Your task to perform on an android device: Clear the shopping cart on bestbuy. Add "corsair k70" to the cart on bestbuy, then select checkout. Image 0: 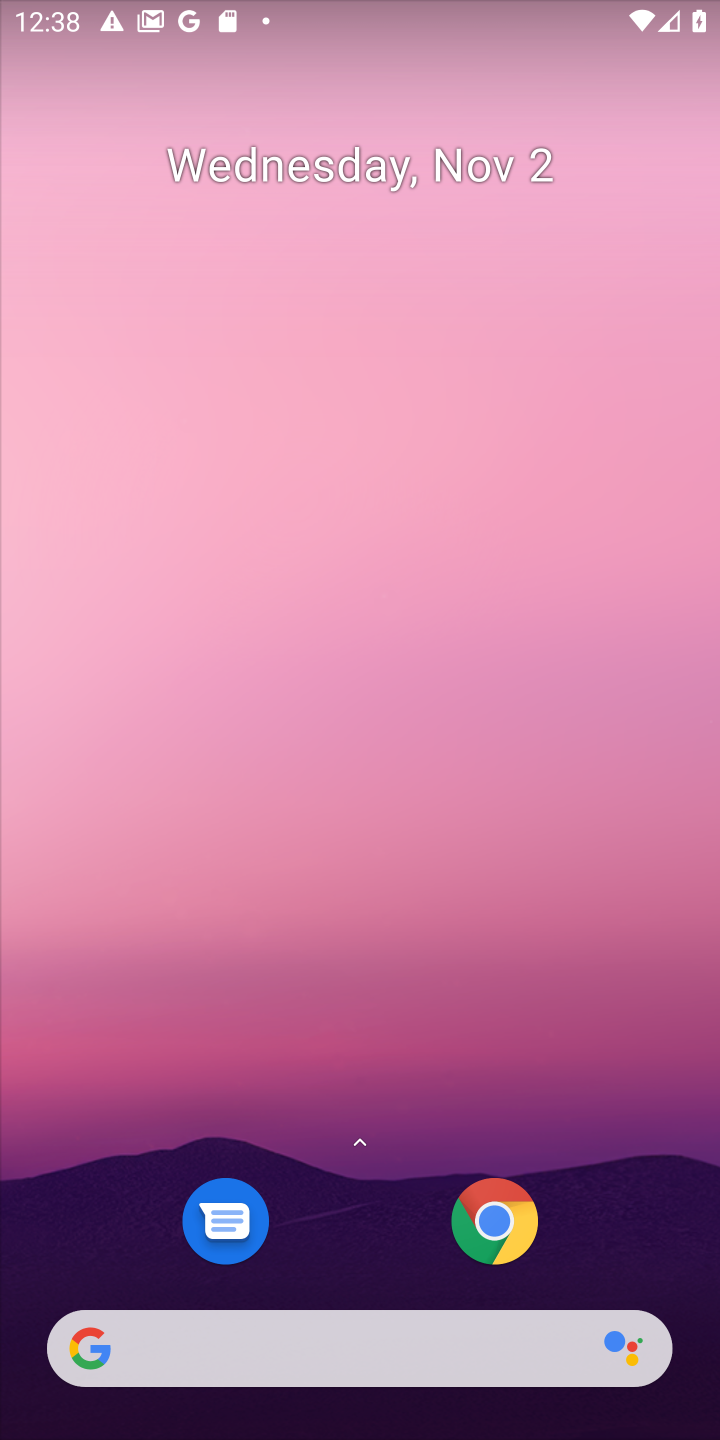
Step 0: click (312, 1353)
Your task to perform on an android device: Clear the shopping cart on bestbuy. Add "corsair k70" to the cart on bestbuy, then select checkout. Image 1: 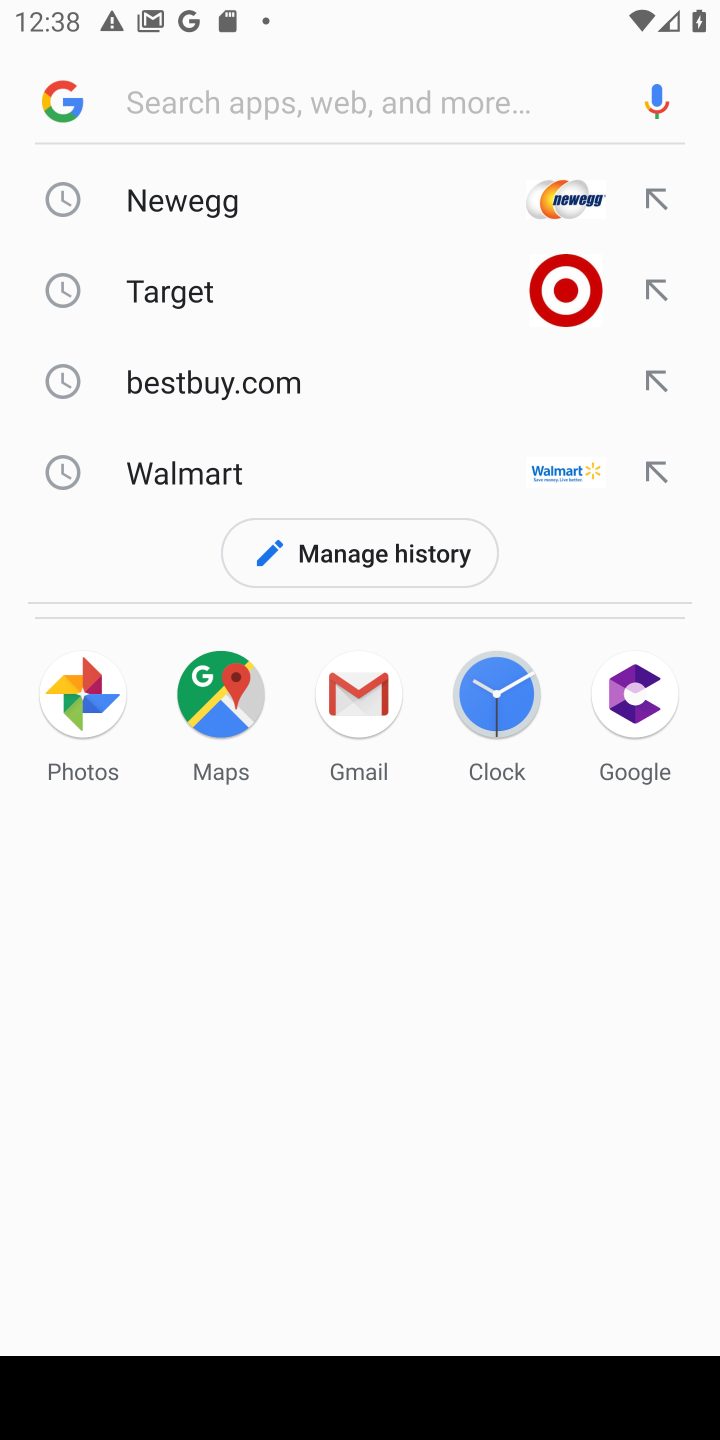
Step 1: click (234, 404)
Your task to perform on an android device: Clear the shopping cart on bestbuy. Add "corsair k70" to the cart on bestbuy, then select checkout. Image 2: 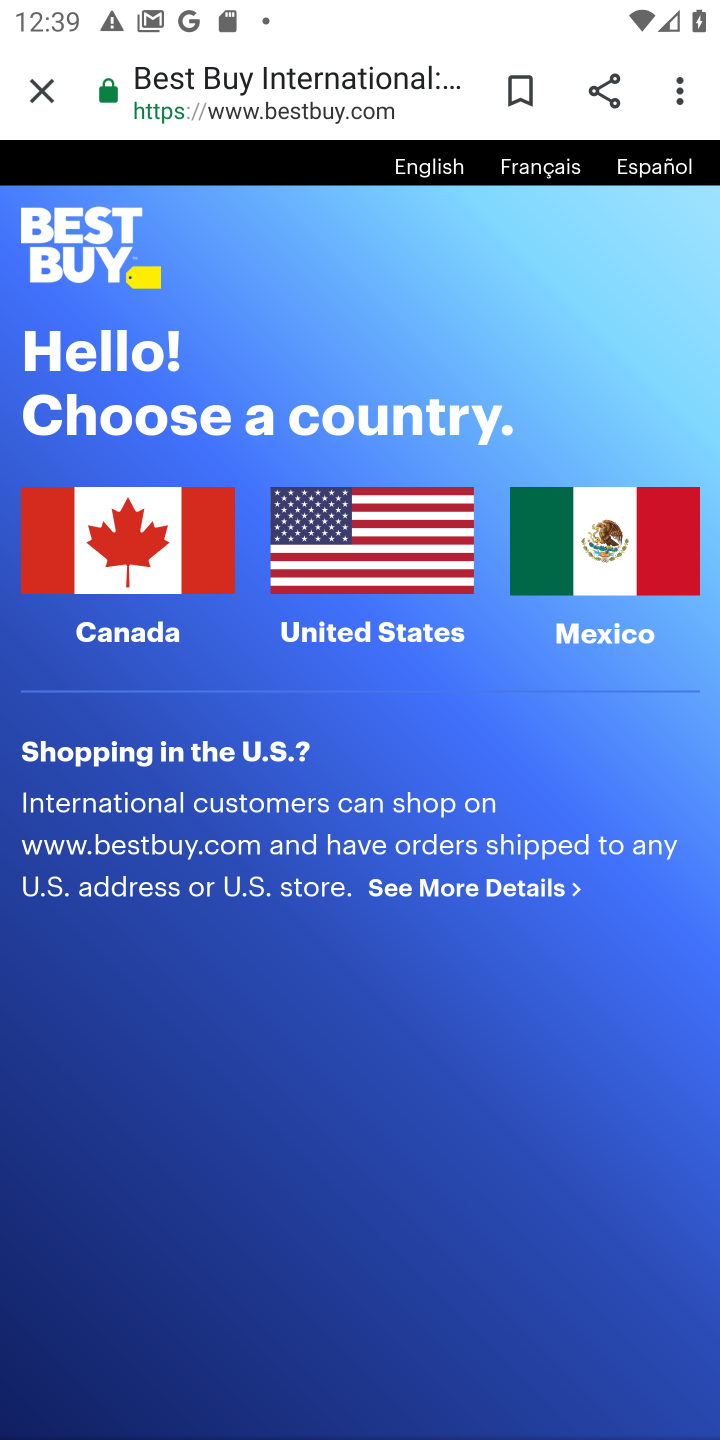
Step 2: click (80, 558)
Your task to perform on an android device: Clear the shopping cart on bestbuy. Add "corsair k70" to the cart on bestbuy, then select checkout. Image 3: 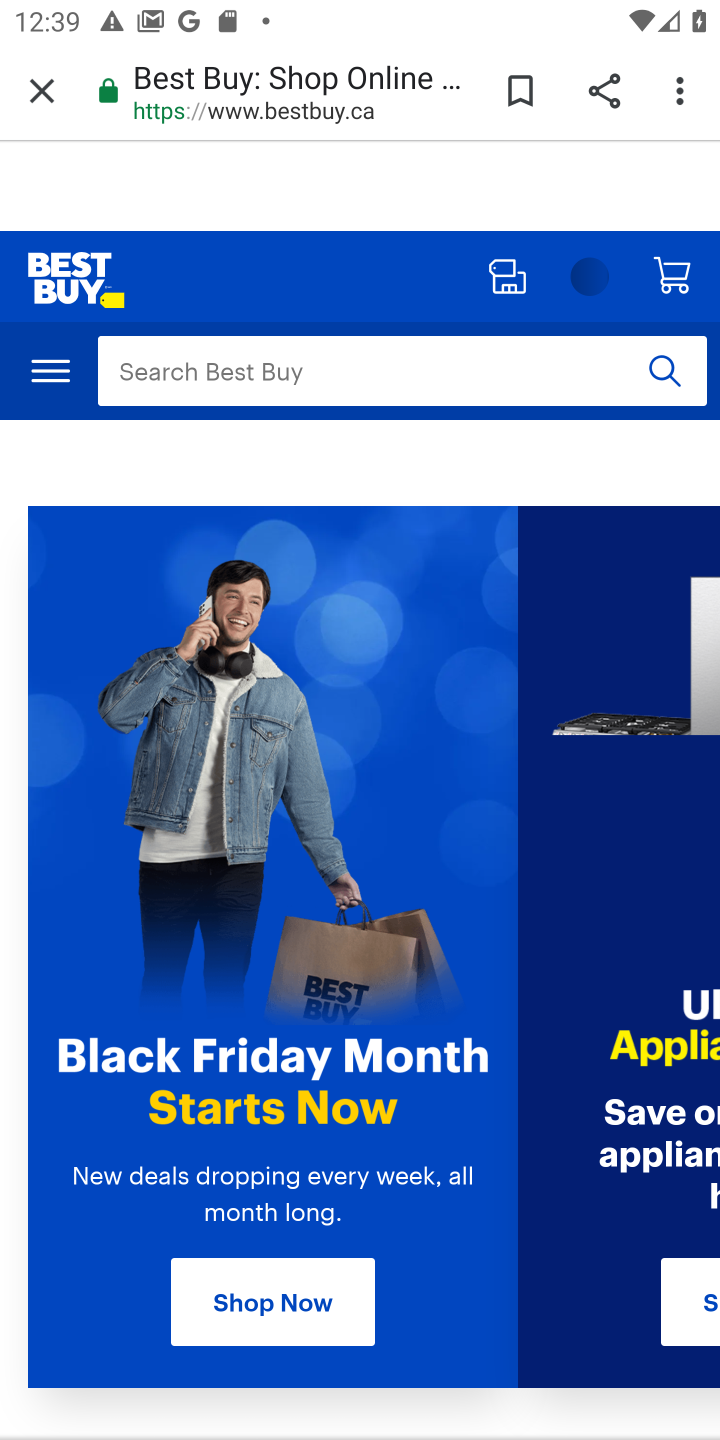
Step 3: click (405, 384)
Your task to perform on an android device: Clear the shopping cart on bestbuy. Add "corsair k70" to the cart on bestbuy, then select checkout. Image 4: 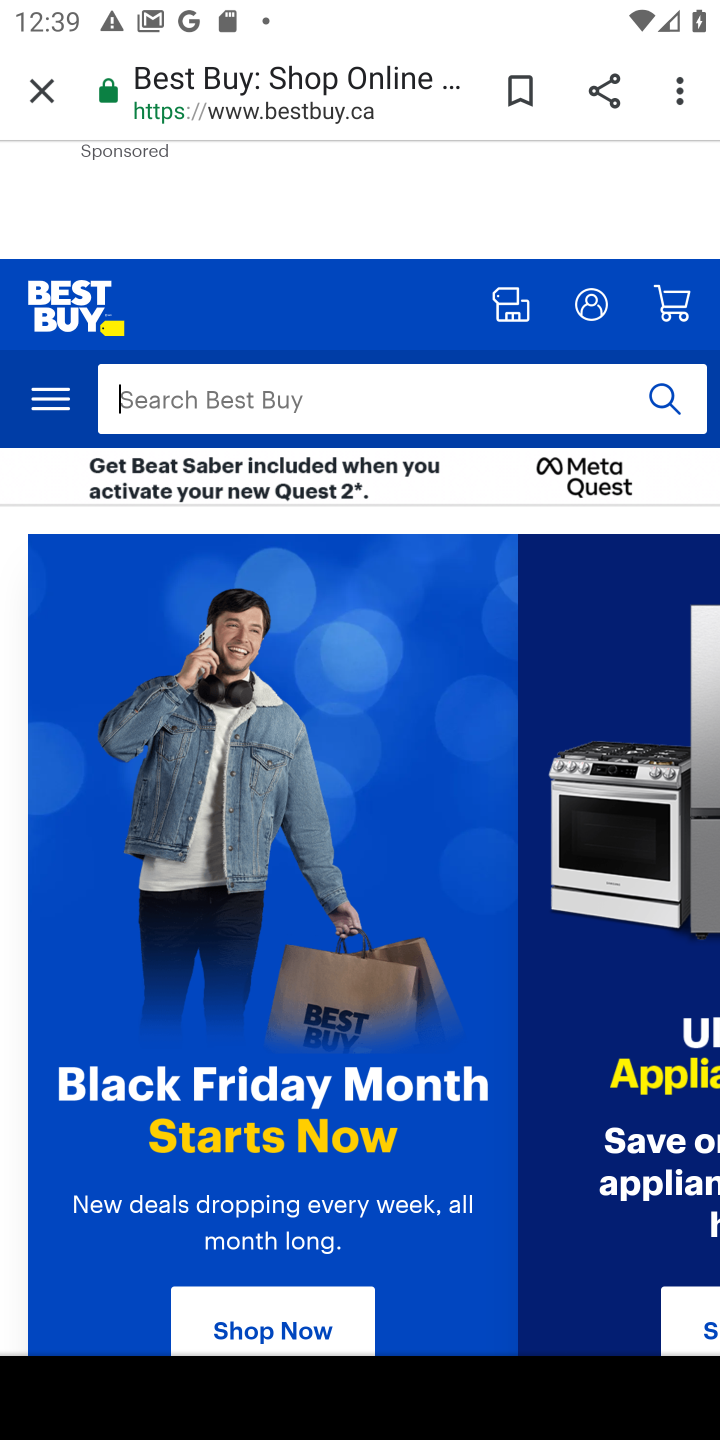
Step 4: click (436, 397)
Your task to perform on an android device: Clear the shopping cart on bestbuy. Add "corsair k70" to the cart on bestbuy, then select checkout. Image 5: 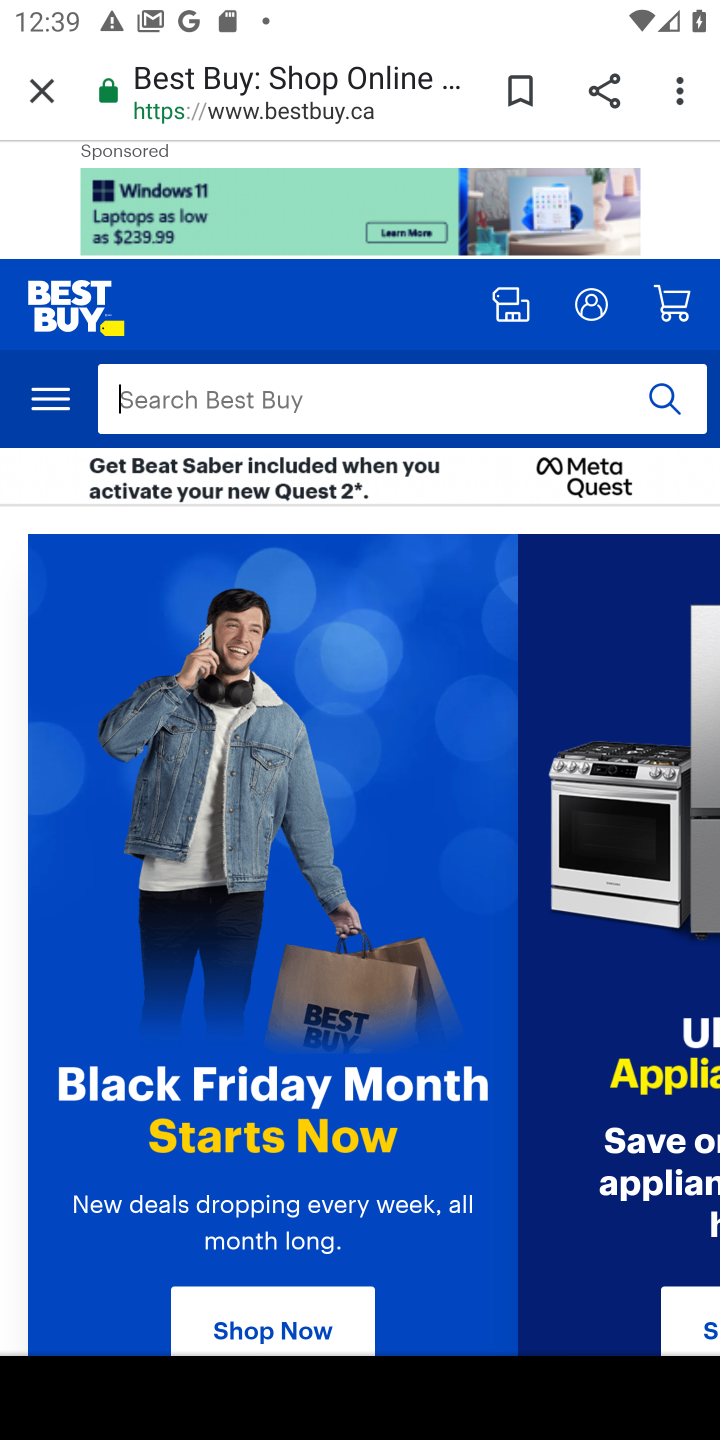
Step 5: type "corsair k70"
Your task to perform on an android device: Clear the shopping cart on bestbuy. Add "corsair k70" to the cart on bestbuy, then select checkout. Image 6: 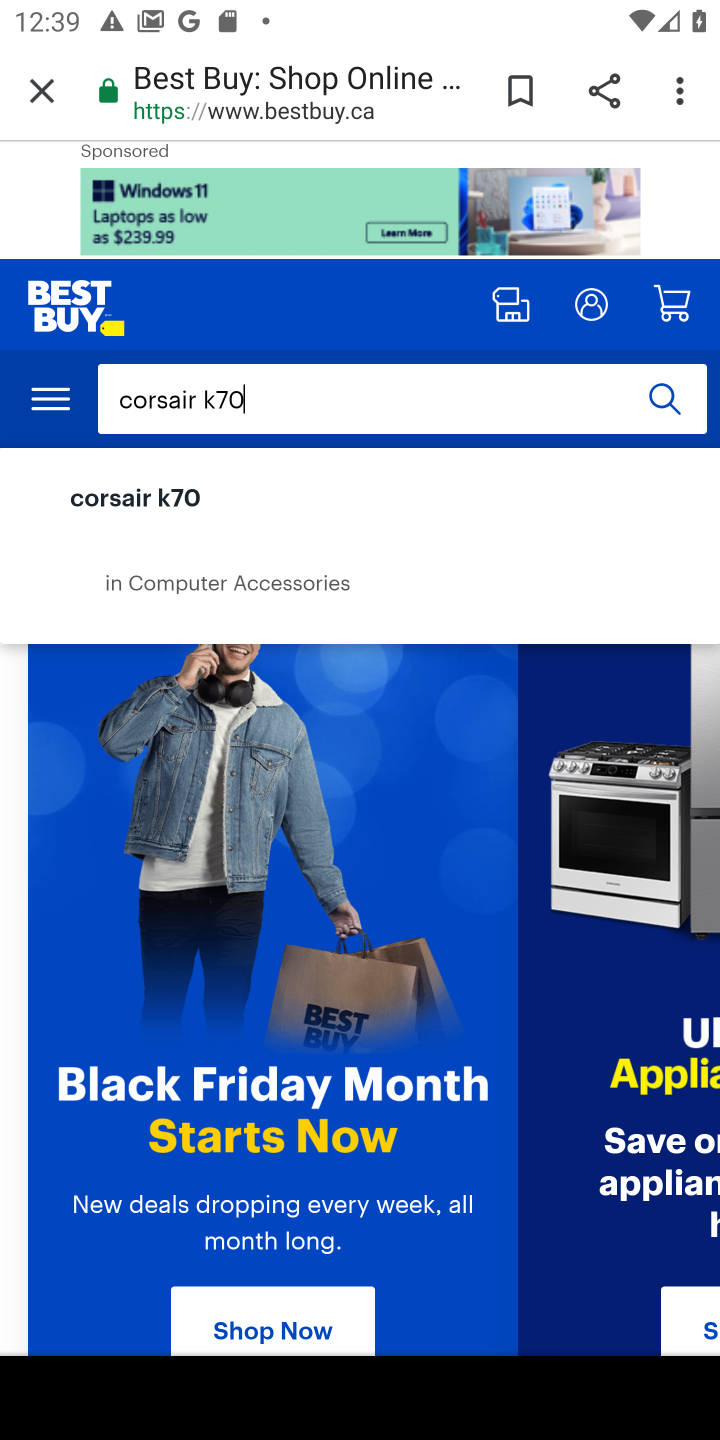
Step 6: click (225, 501)
Your task to perform on an android device: Clear the shopping cart on bestbuy. Add "corsair k70" to the cart on bestbuy, then select checkout. Image 7: 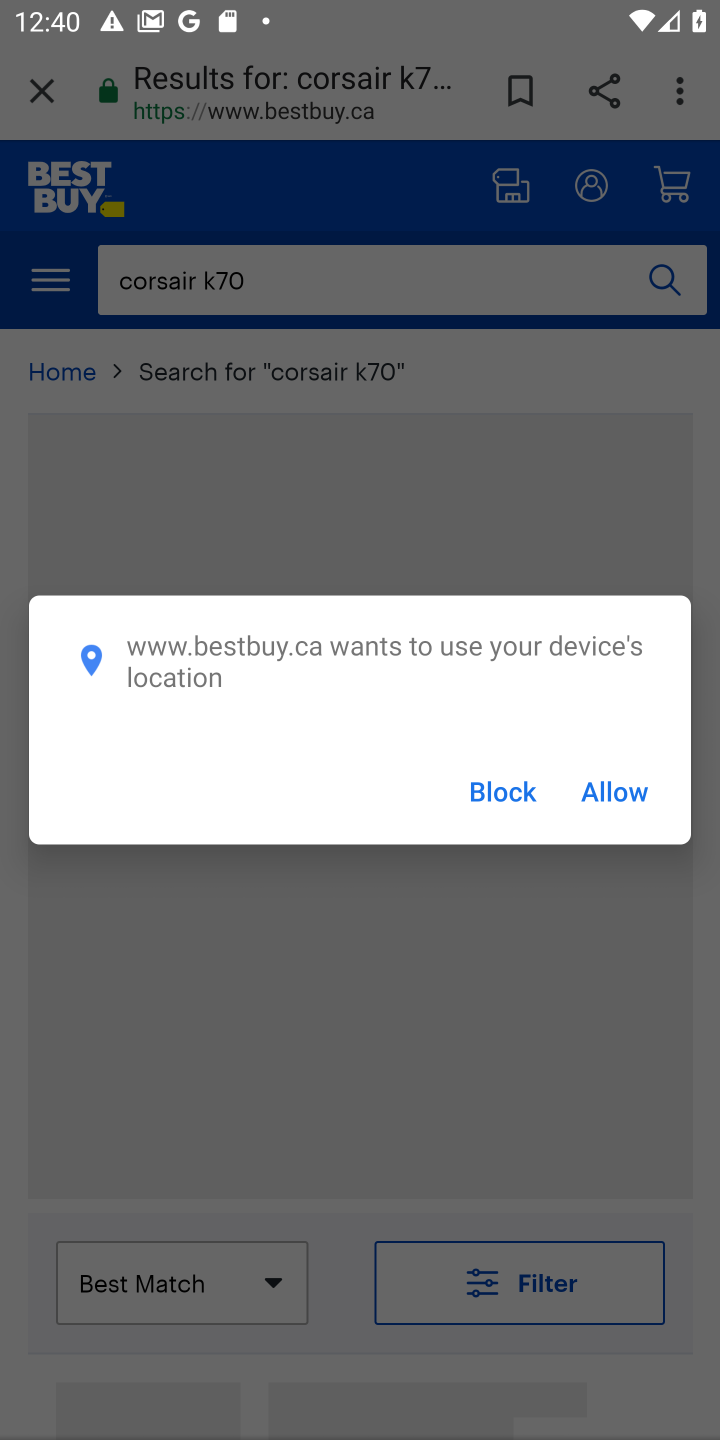
Step 7: click (466, 809)
Your task to perform on an android device: Clear the shopping cart on bestbuy. Add "corsair k70" to the cart on bestbuy, then select checkout. Image 8: 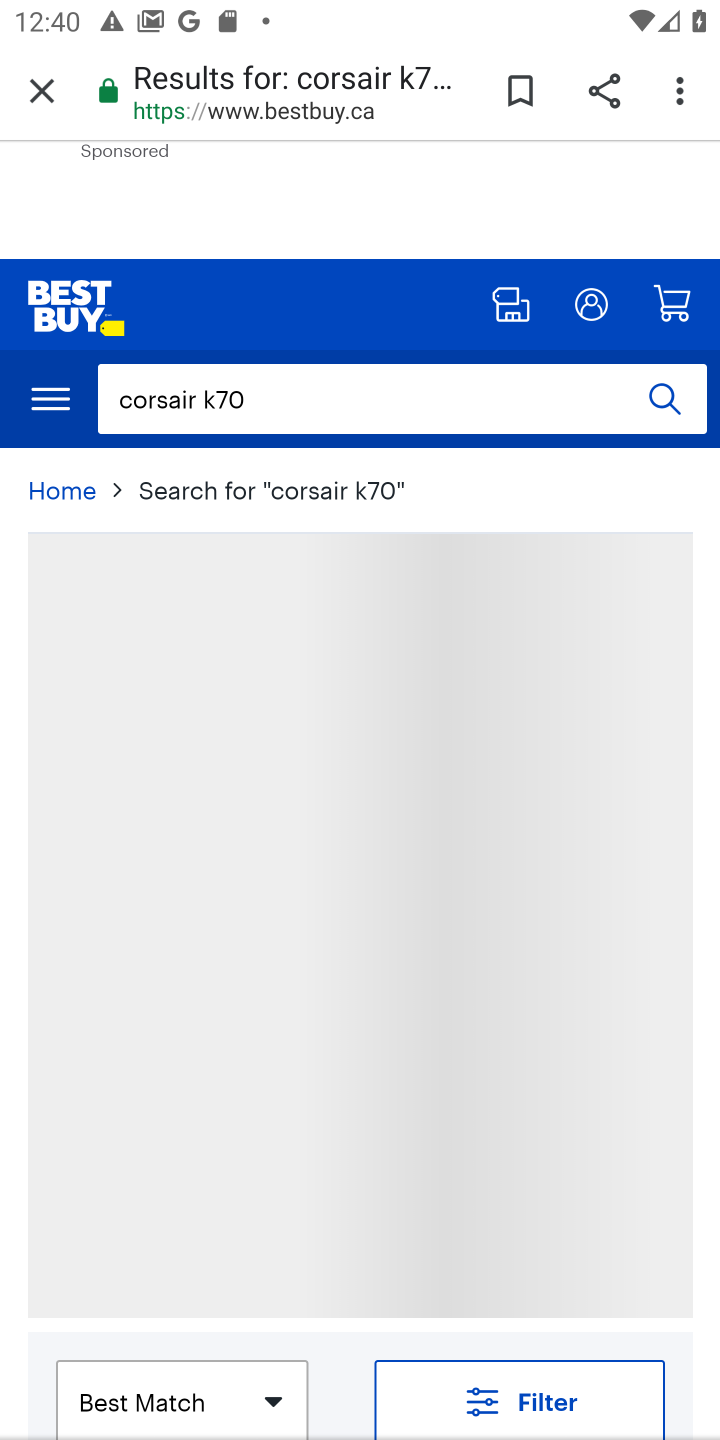
Step 8: task complete